Your task to perform on an android device: add a contact Image 0: 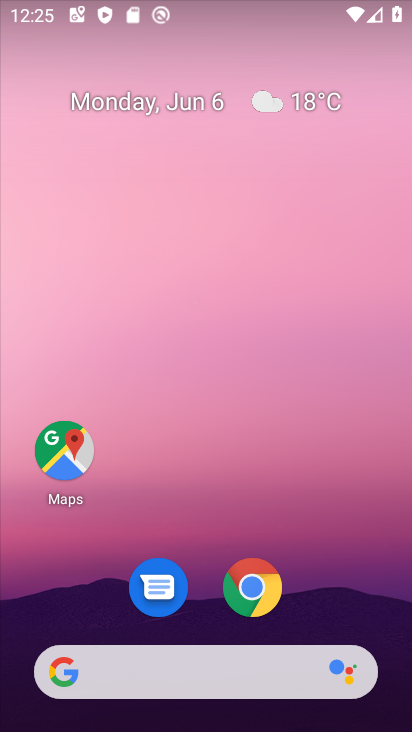
Step 0: press home button
Your task to perform on an android device: add a contact Image 1: 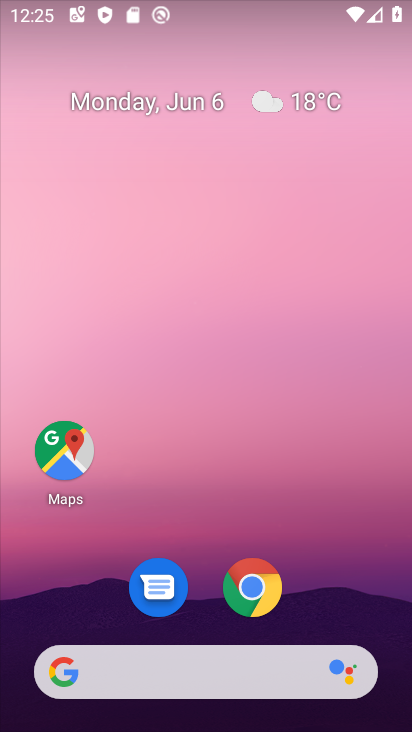
Step 1: drag from (315, 571) to (309, 123)
Your task to perform on an android device: add a contact Image 2: 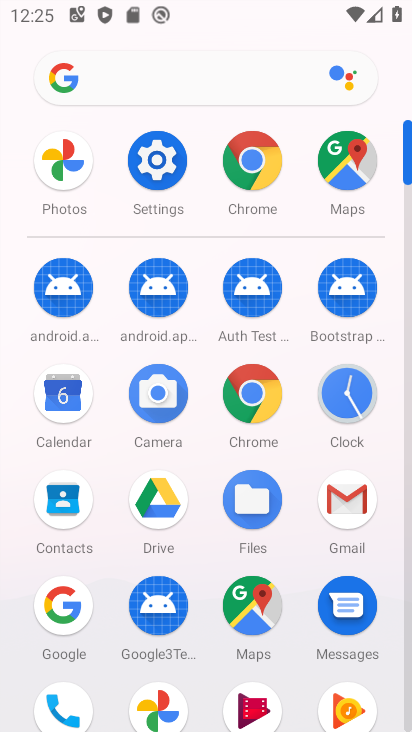
Step 2: click (52, 518)
Your task to perform on an android device: add a contact Image 3: 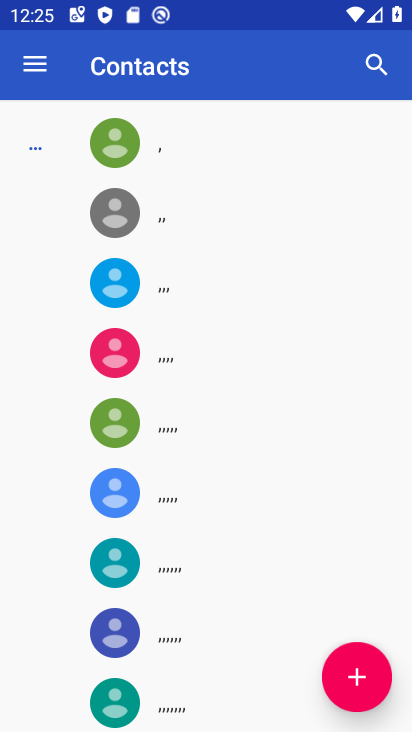
Step 3: click (353, 684)
Your task to perform on an android device: add a contact Image 4: 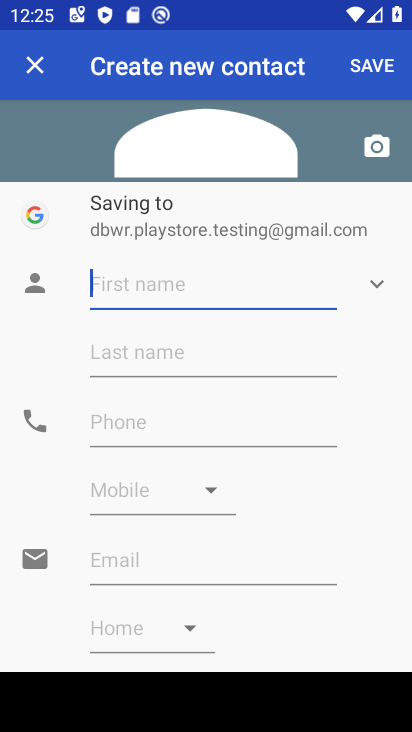
Step 4: type "soniya"
Your task to perform on an android device: add a contact Image 5: 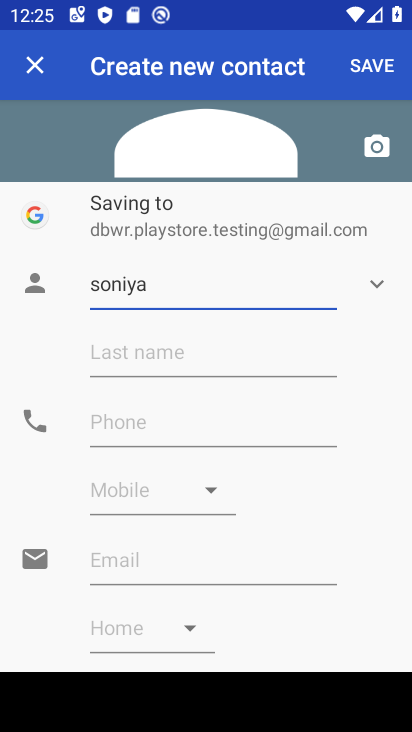
Step 5: click (144, 426)
Your task to perform on an android device: add a contact Image 6: 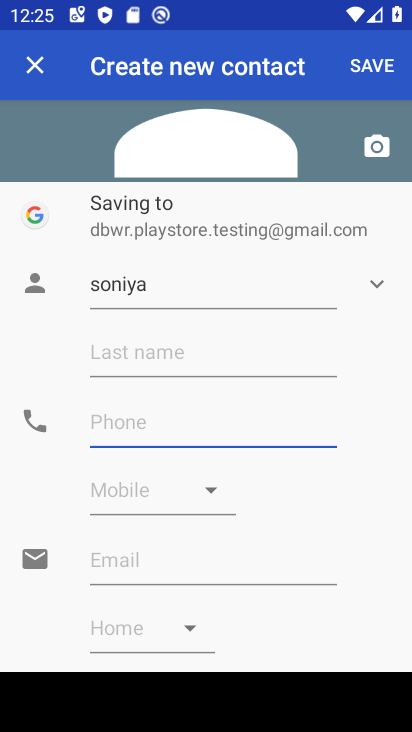
Step 6: type "83737483738"
Your task to perform on an android device: add a contact Image 7: 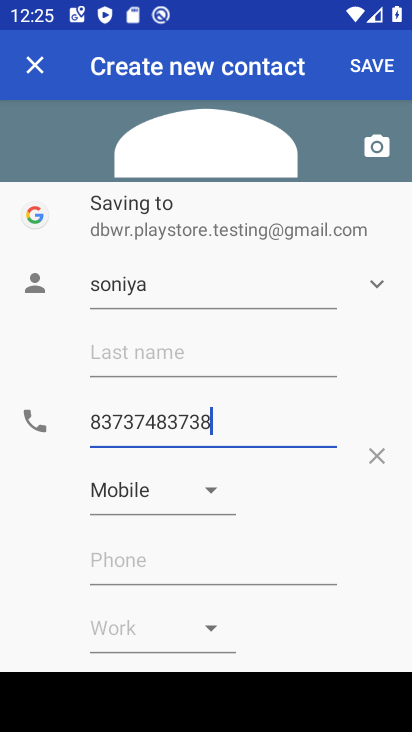
Step 7: click (374, 60)
Your task to perform on an android device: add a contact Image 8: 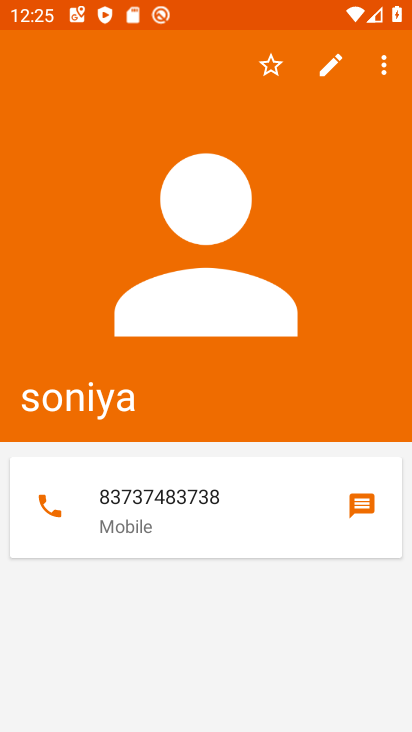
Step 8: task complete